Your task to perform on an android device: Open maps Image 0: 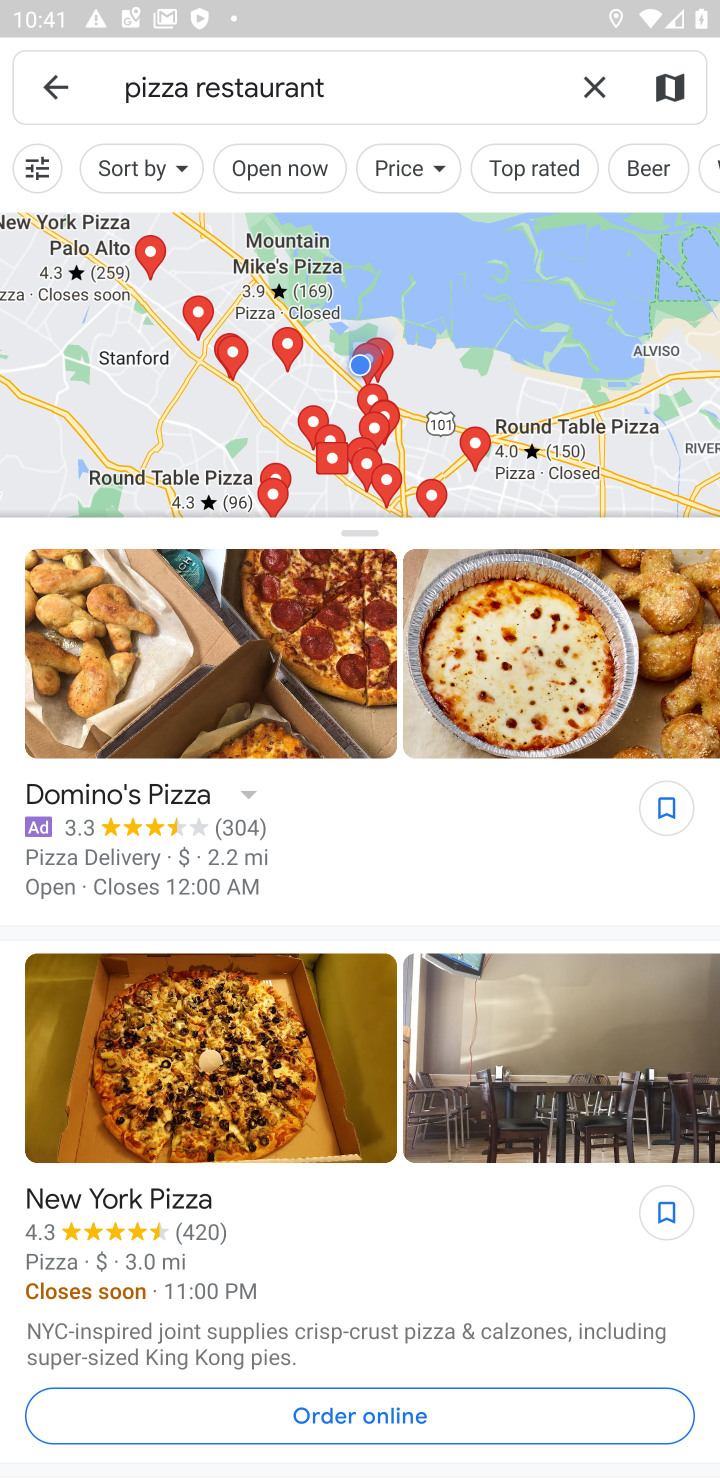
Step 0: task complete